Your task to perform on an android device: set the timer Image 0: 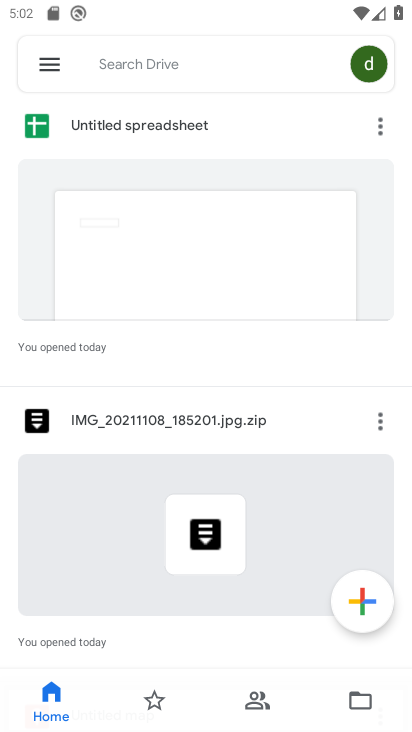
Step 0: press home button
Your task to perform on an android device: set the timer Image 1: 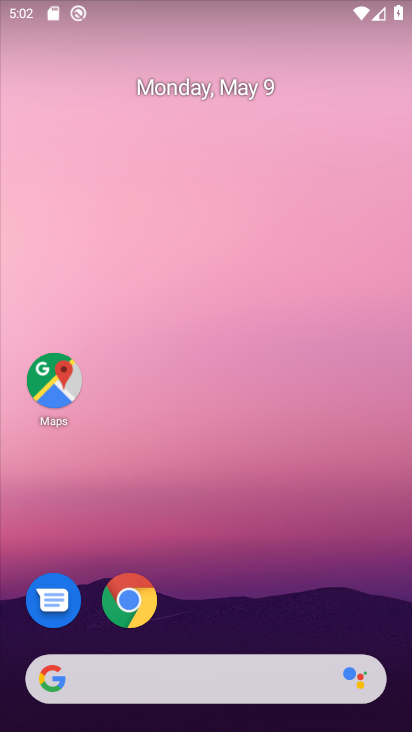
Step 1: drag from (334, 669) to (263, 1)
Your task to perform on an android device: set the timer Image 2: 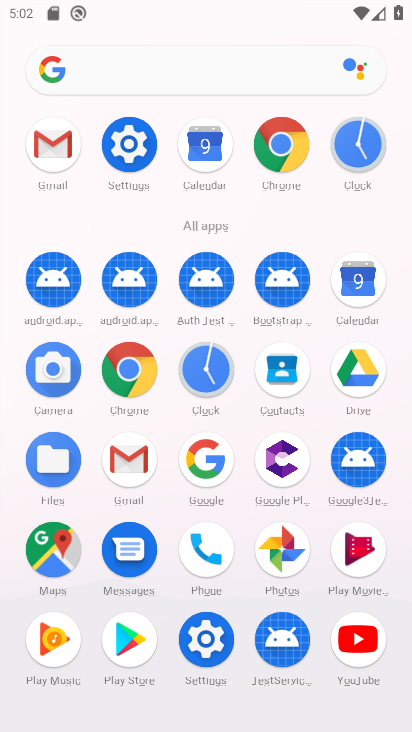
Step 2: click (213, 357)
Your task to perform on an android device: set the timer Image 3: 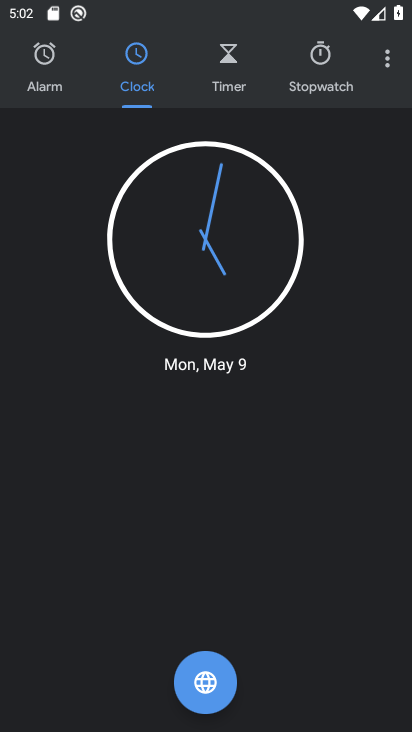
Step 3: click (232, 59)
Your task to perform on an android device: set the timer Image 4: 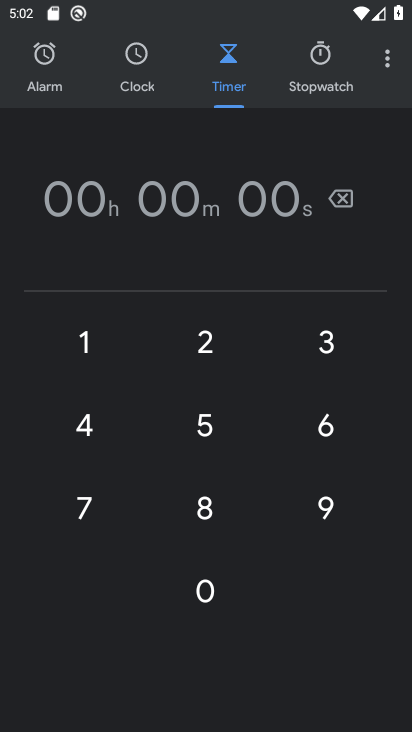
Step 4: click (208, 501)
Your task to perform on an android device: set the timer Image 5: 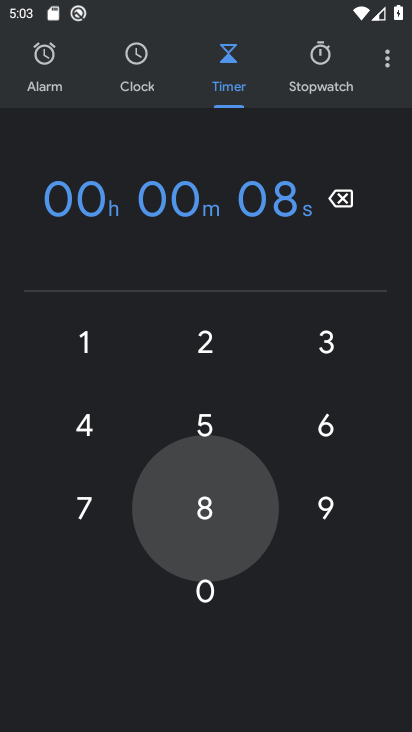
Step 5: click (213, 414)
Your task to perform on an android device: set the timer Image 6: 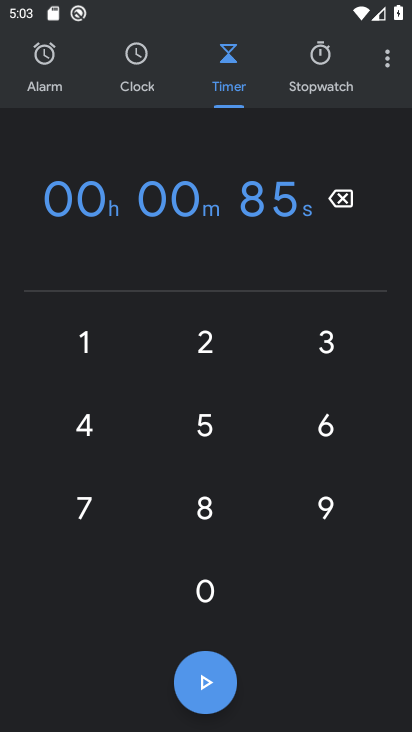
Step 6: click (328, 509)
Your task to perform on an android device: set the timer Image 7: 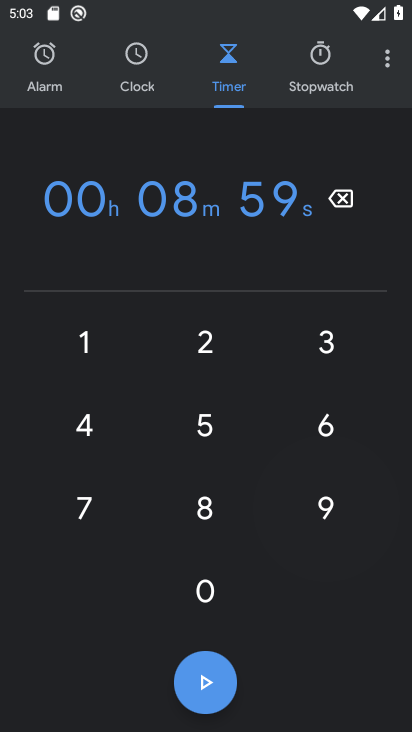
Step 7: click (214, 503)
Your task to perform on an android device: set the timer Image 8: 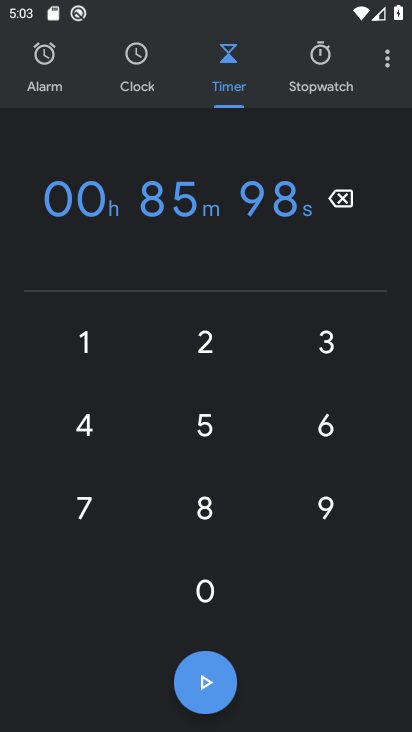
Step 8: click (203, 426)
Your task to perform on an android device: set the timer Image 9: 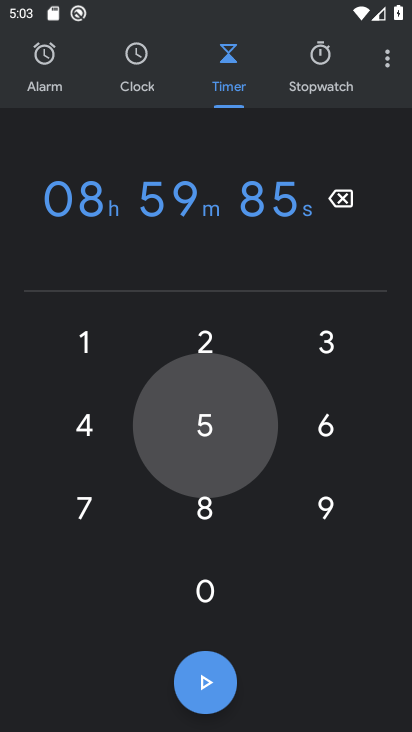
Step 9: click (196, 496)
Your task to perform on an android device: set the timer Image 10: 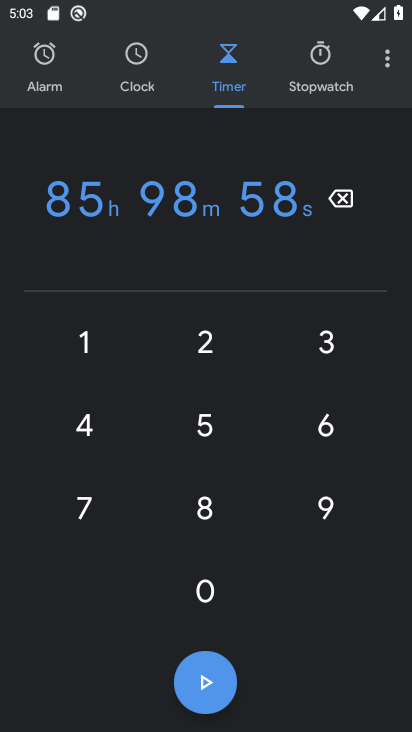
Step 10: click (205, 680)
Your task to perform on an android device: set the timer Image 11: 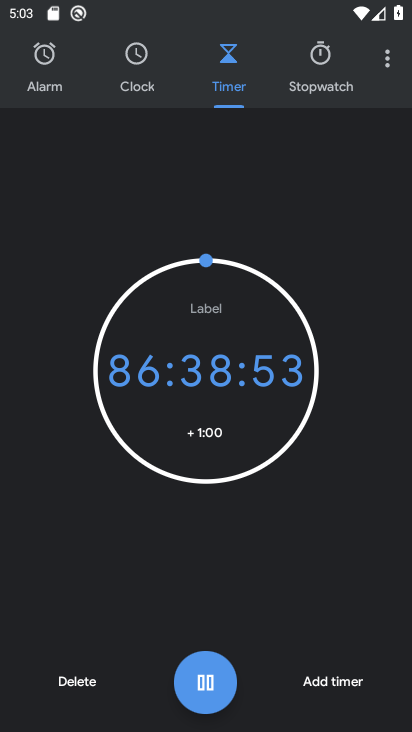
Step 11: task complete